Your task to perform on an android device: Open Google Maps and go to "Timeline" Image 0: 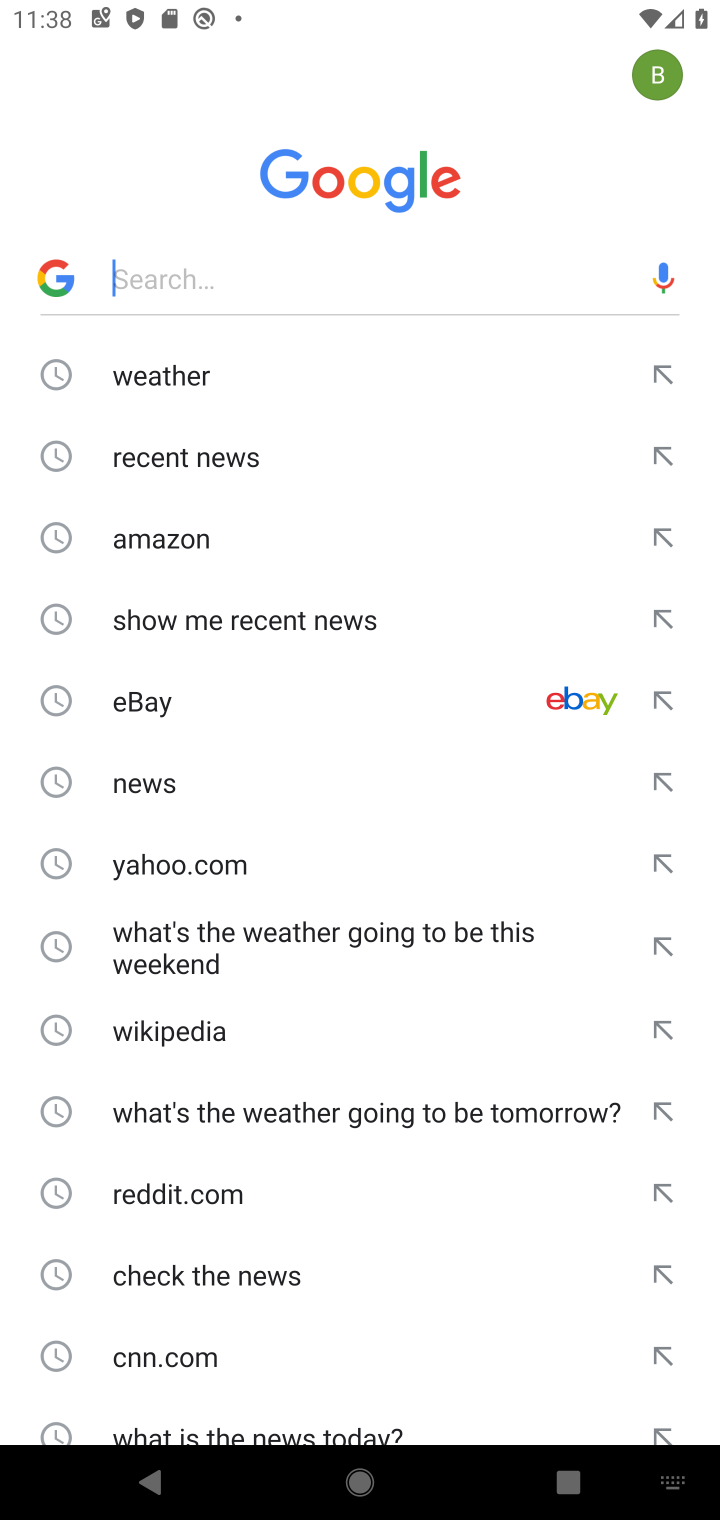
Step 0: press back button
Your task to perform on an android device: Open Google Maps and go to "Timeline" Image 1: 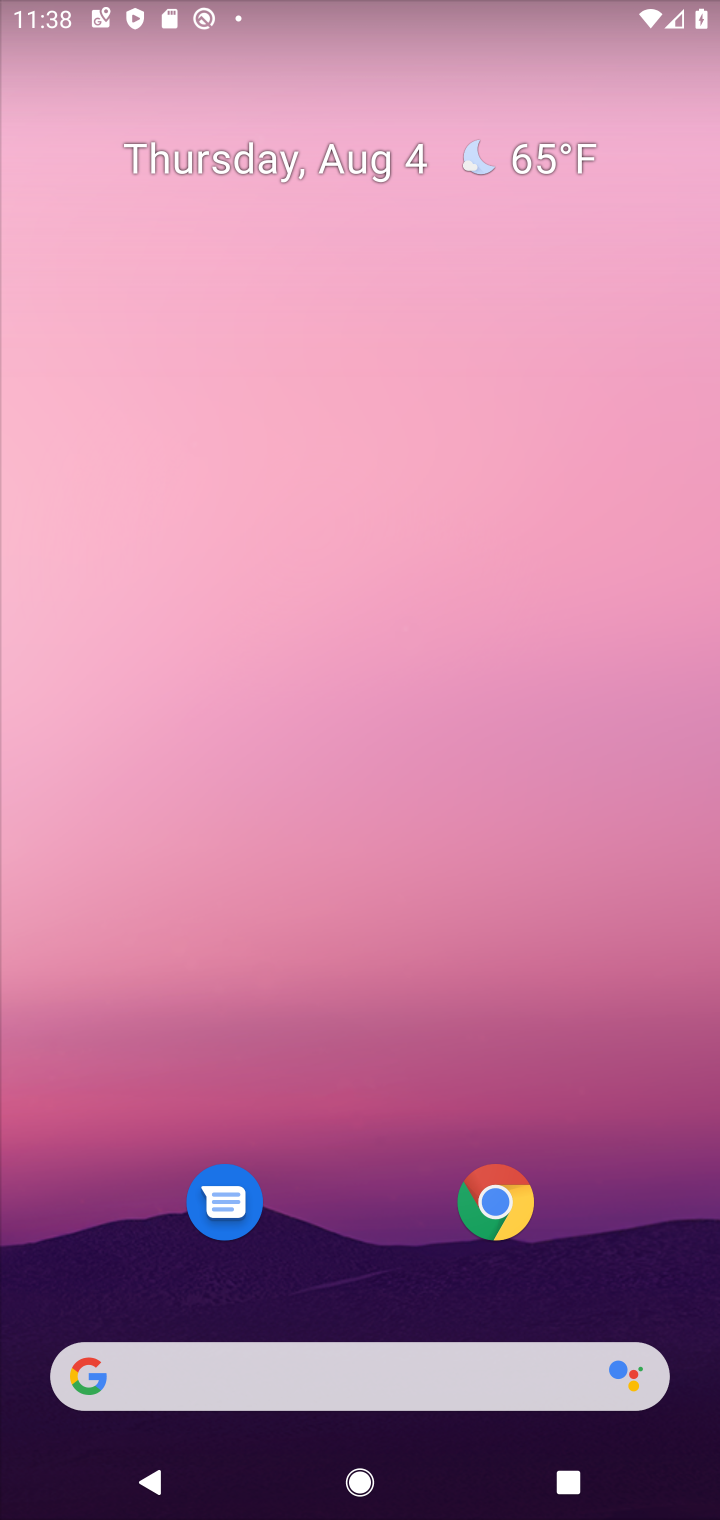
Step 1: drag from (312, 1254) to (376, 245)
Your task to perform on an android device: Open Google Maps and go to "Timeline" Image 2: 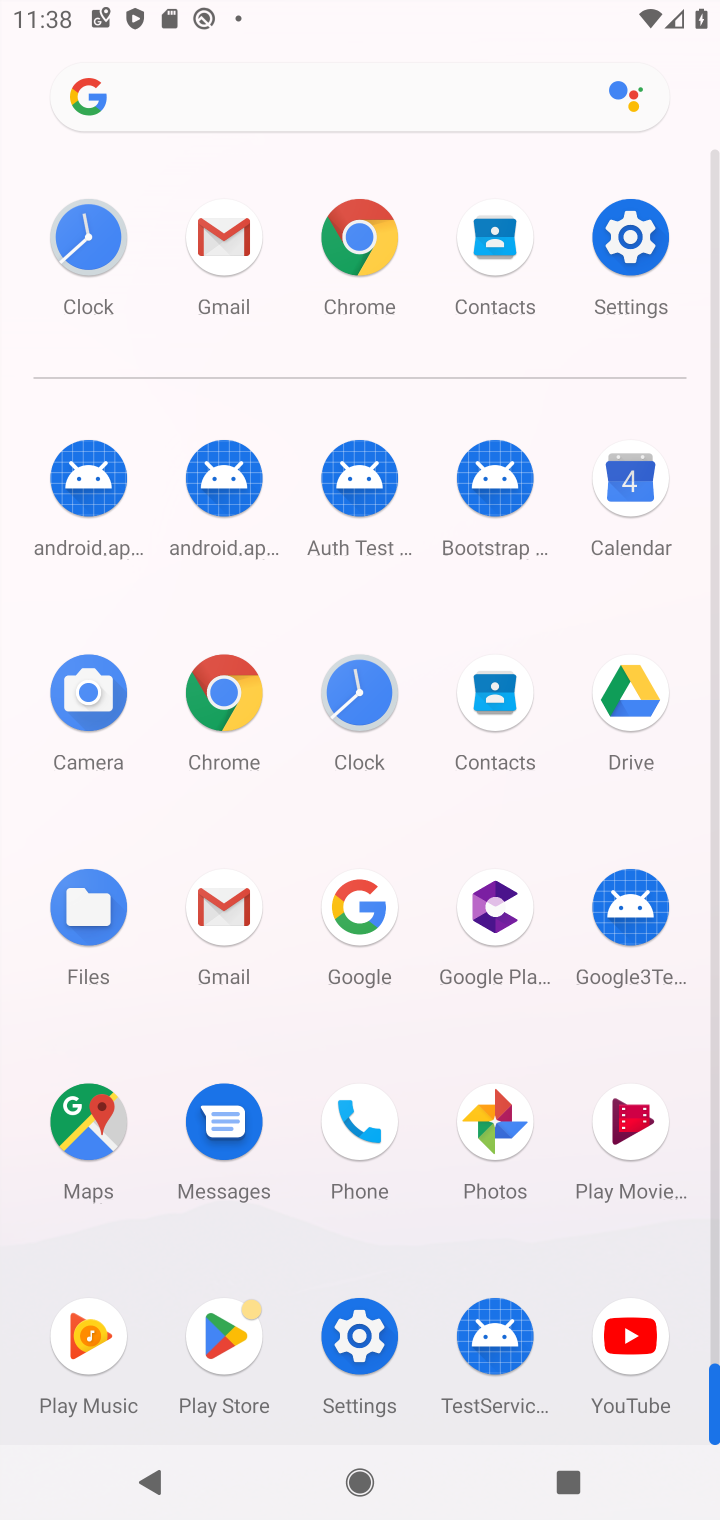
Step 2: click (90, 1115)
Your task to perform on an android device: Open Google Maps and go to "Timeline" Image 3: 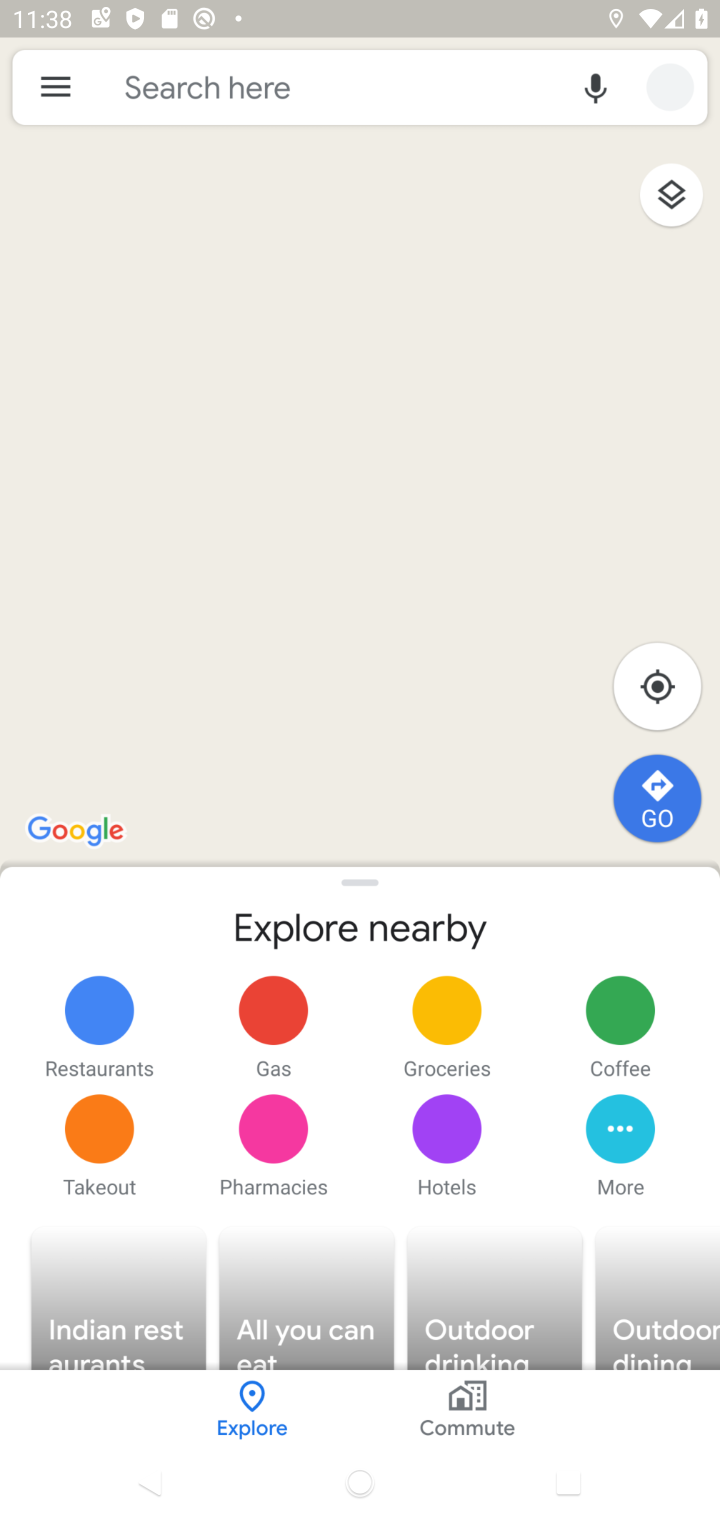
Step 3: click (55, 96)
Your task to perform on an android device: Open Google Maps and go to "Timeline" Image 4: 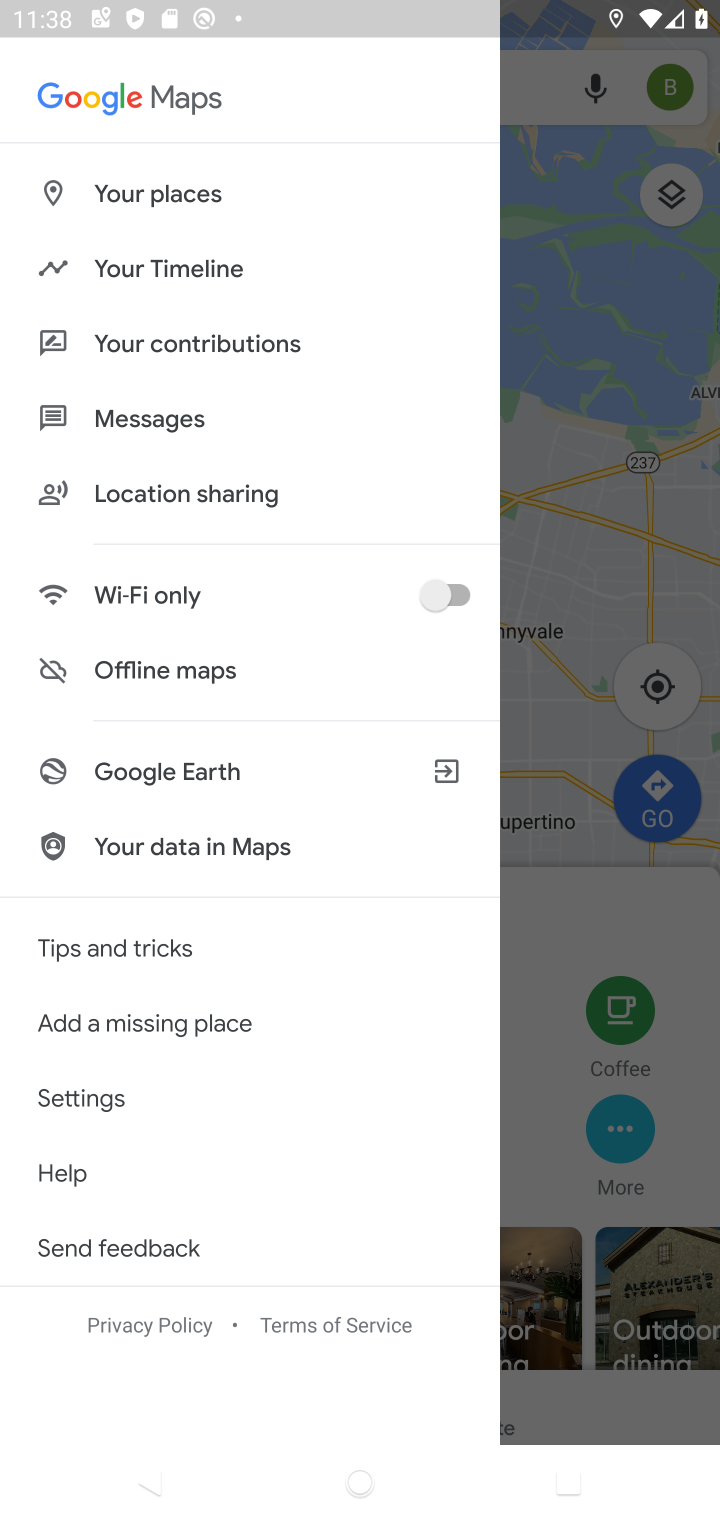
Step 4: click (190, 256)
Your task to perform on an android device: Open Google Maps and go to "Timeline" Image 5: 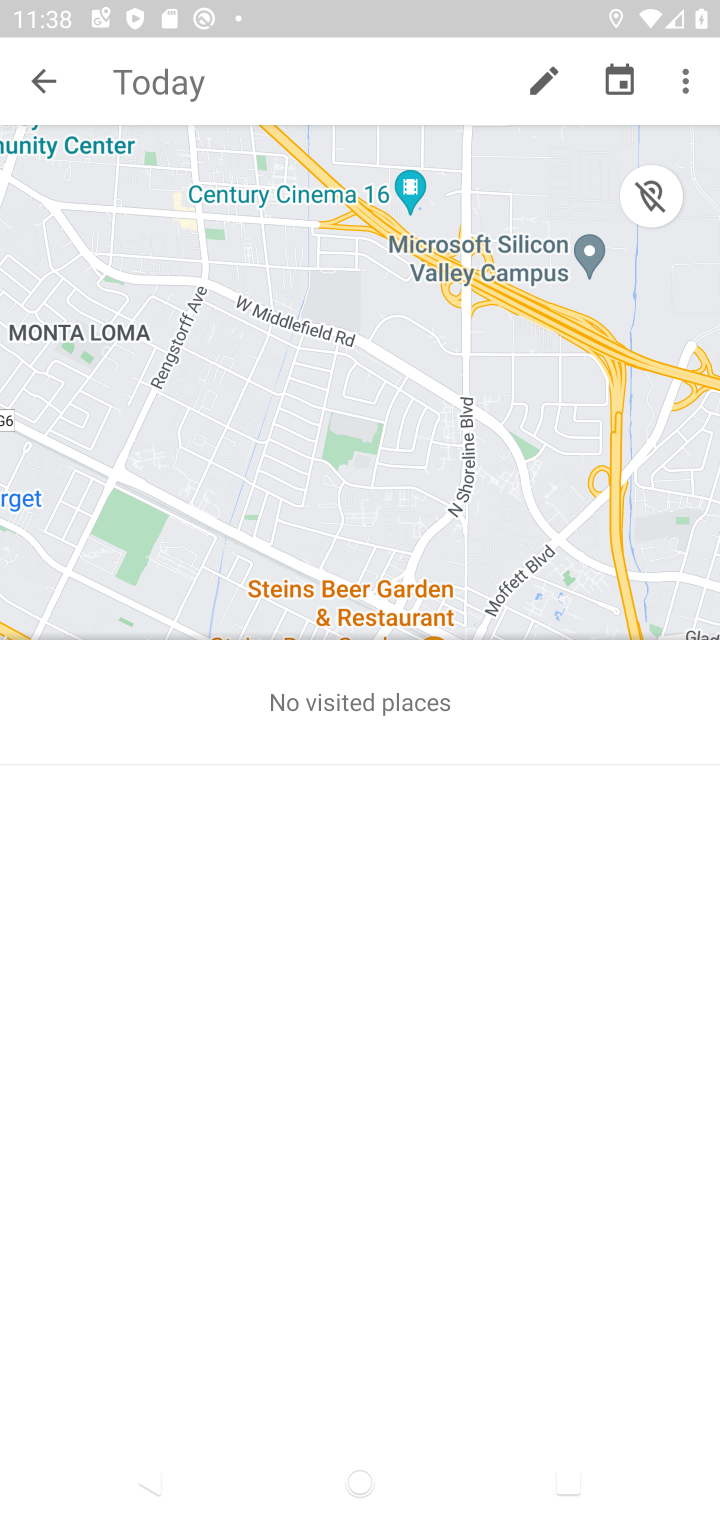
Step 5: task complete